Your task to perform on an android device: Search for pizza restaurants on Maps Image 0: 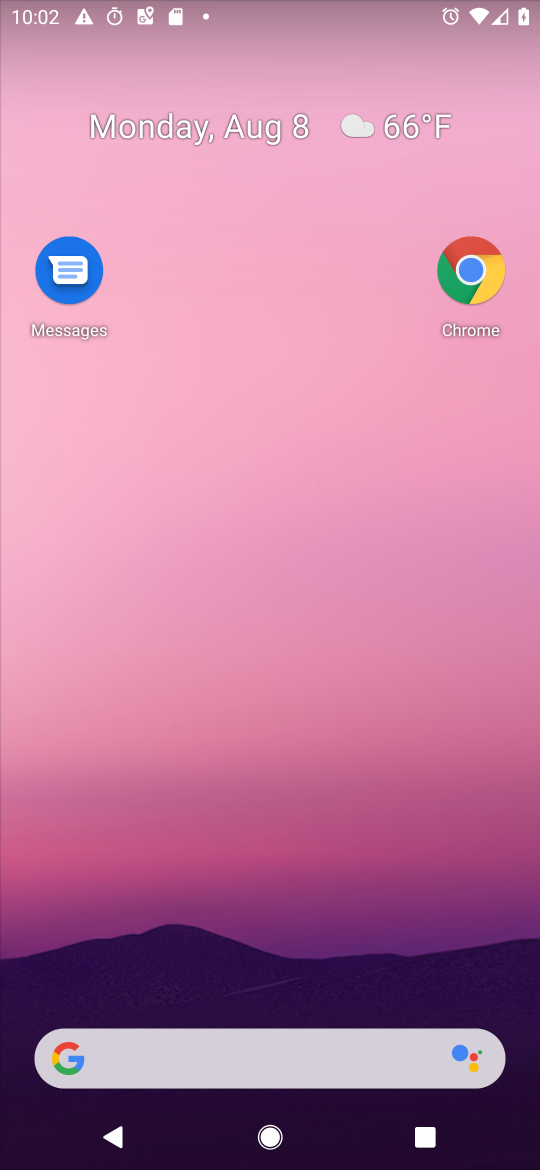
Step 0: press home button
Your task to perform on an android device: Search for pizza restaurants on Maps Image 1: 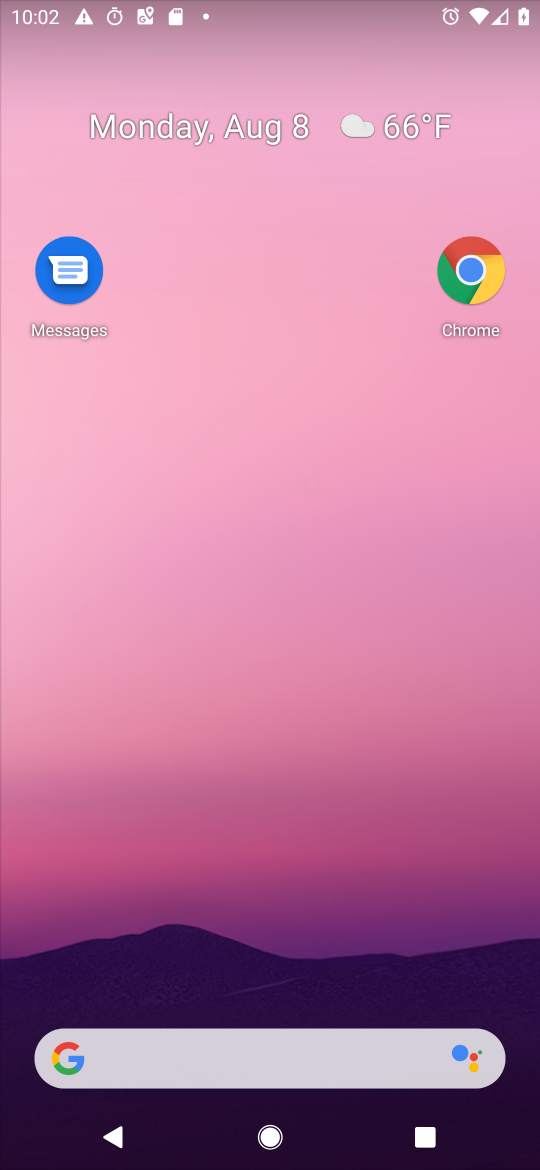
Step 1: drag from (216, 923) to (265, 369)
Your task to perform on an android device: Search for pizza restaurants on Maps Image 2: 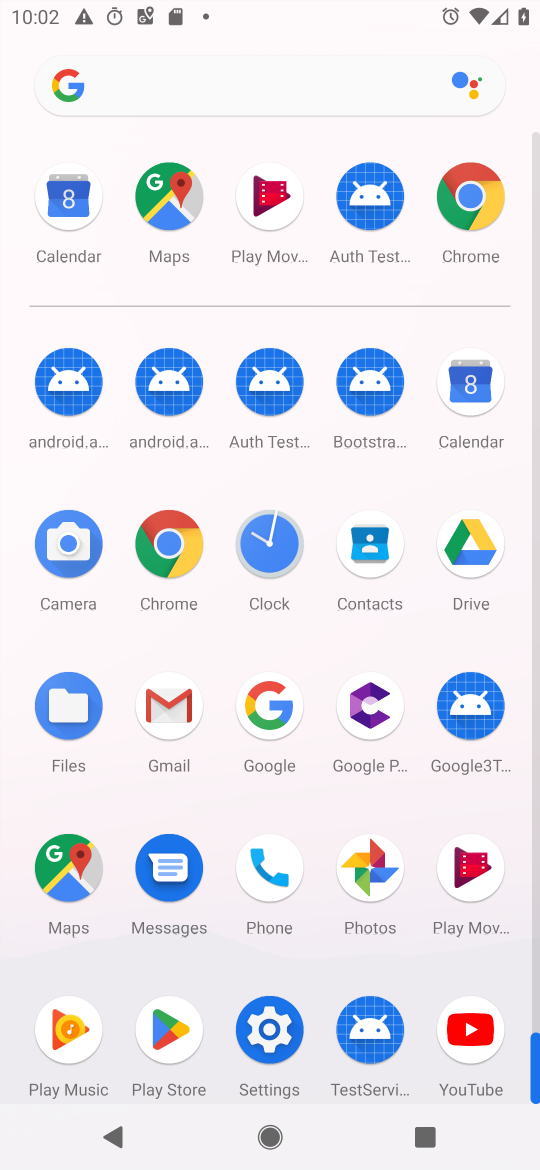
Step 2: click (172, 189)
Your task to perform on an android device: Search for pizza restaurants on Maps Image 3: 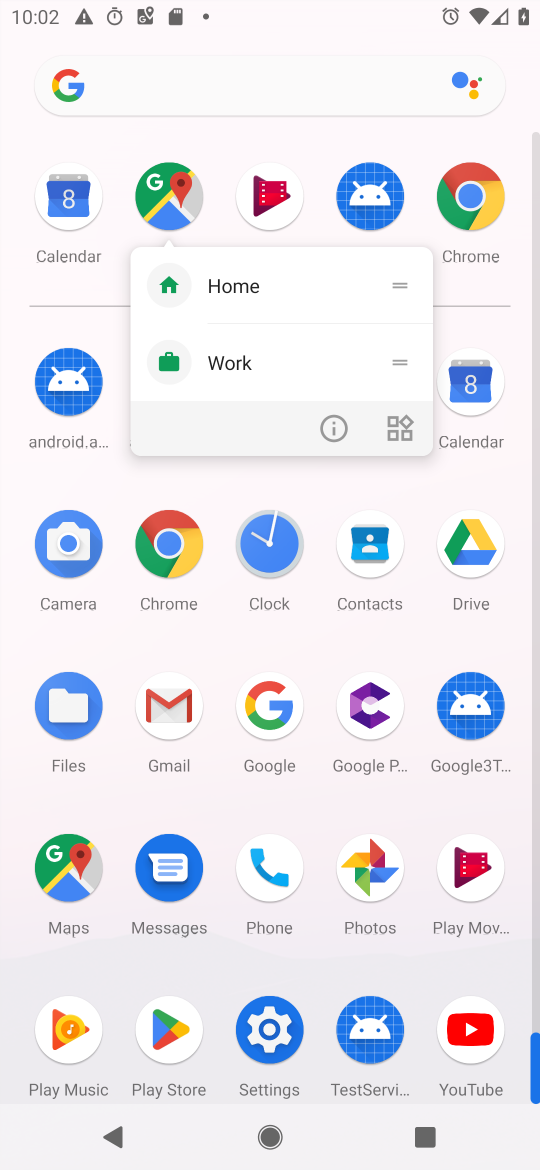
Step 3: click (331, 416)
Your task to perform on an android device: Search for pizza restaurants on Maps Image 4: 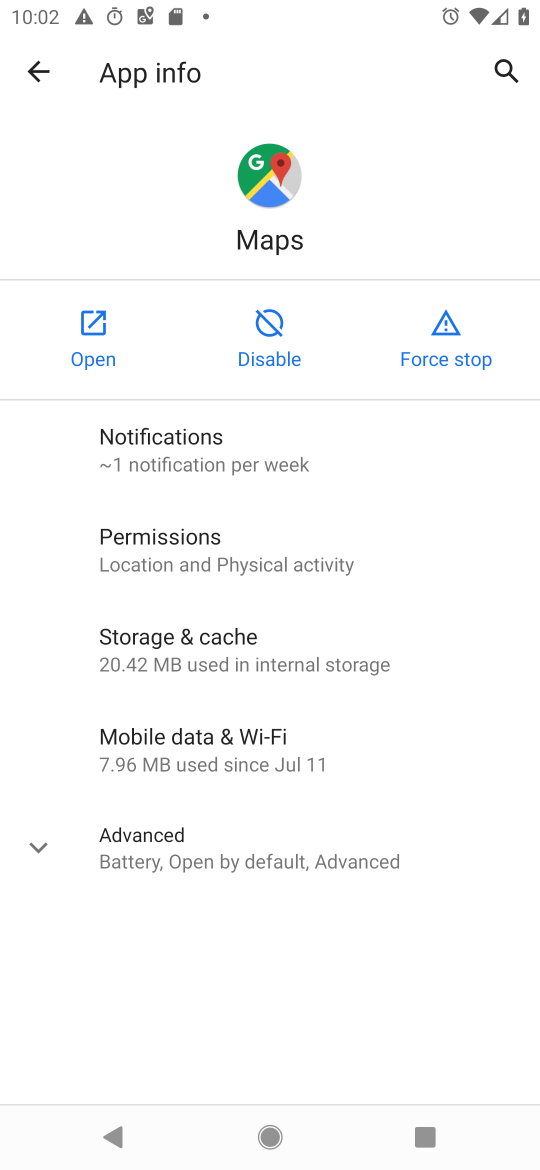
Step 4: click (88, 346)
Your task to perform on an android device: Search for pizza restaurants on Maps Image 5: 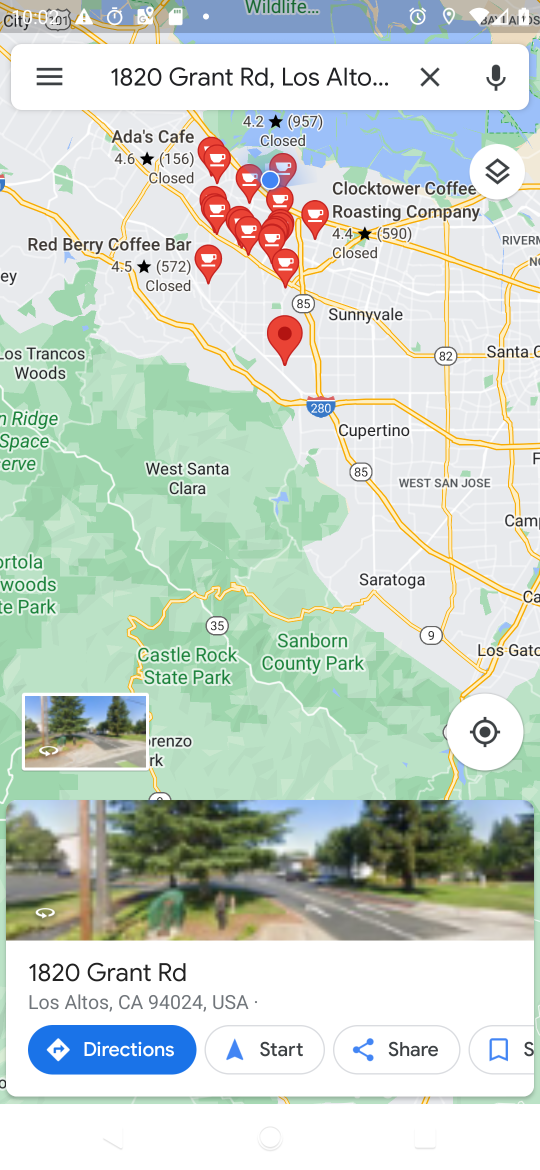
Step 5: drag from (289, 811) to (336, 203)
Your task to perform on an android device: Search for pizza restaurants on Maps Image 6: 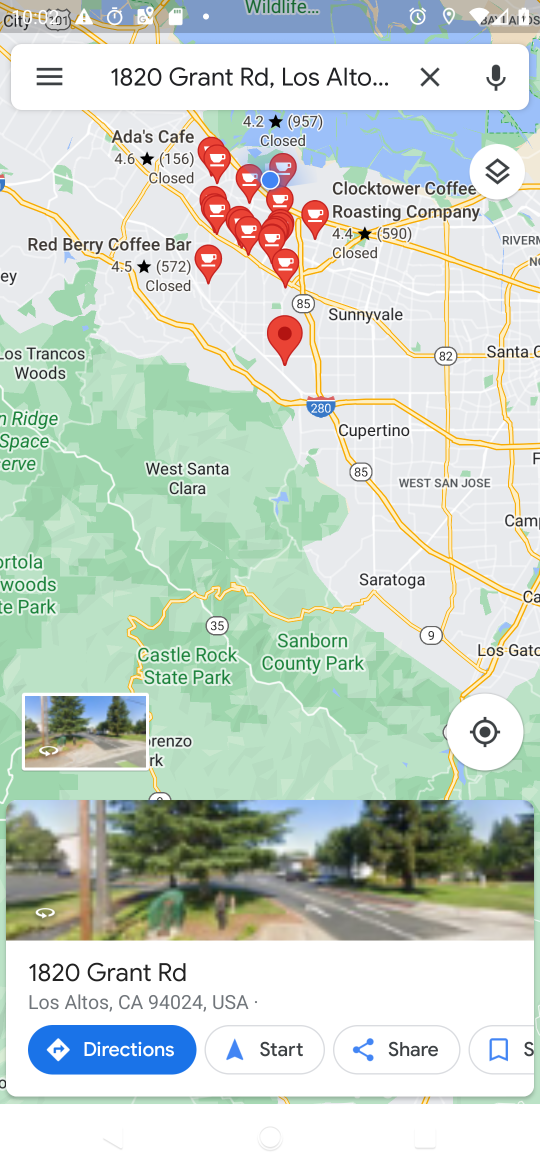
Step 6: click (428, 73)
Your task to perform on an android device: Search for pizza restaurants on Maps Image 7: 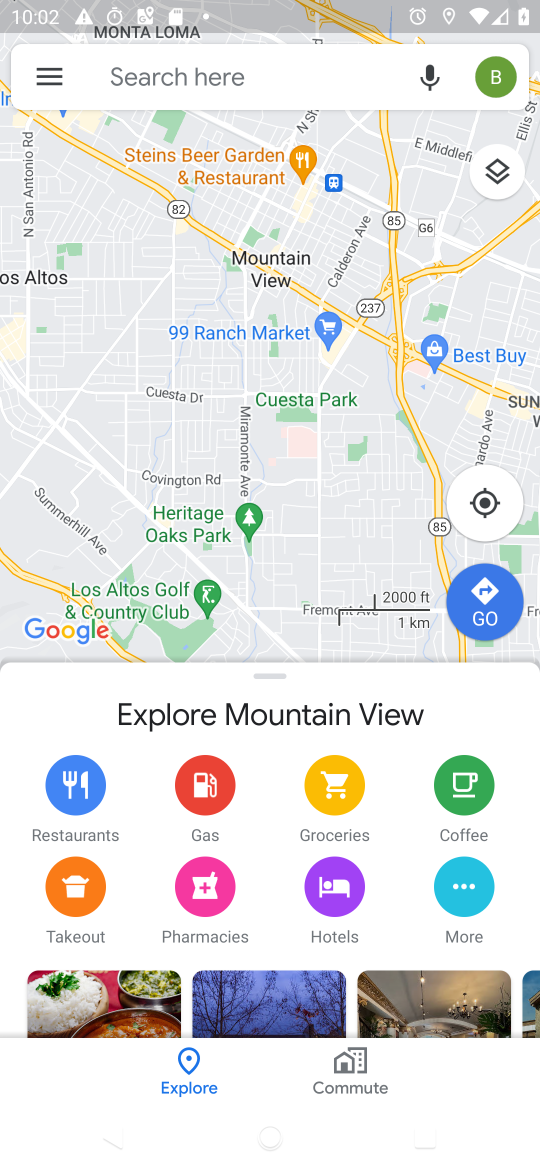
Step 7: click (220, 97)
Your task to perform on an android device: Search for pizza restaurants on Maps Image 8: 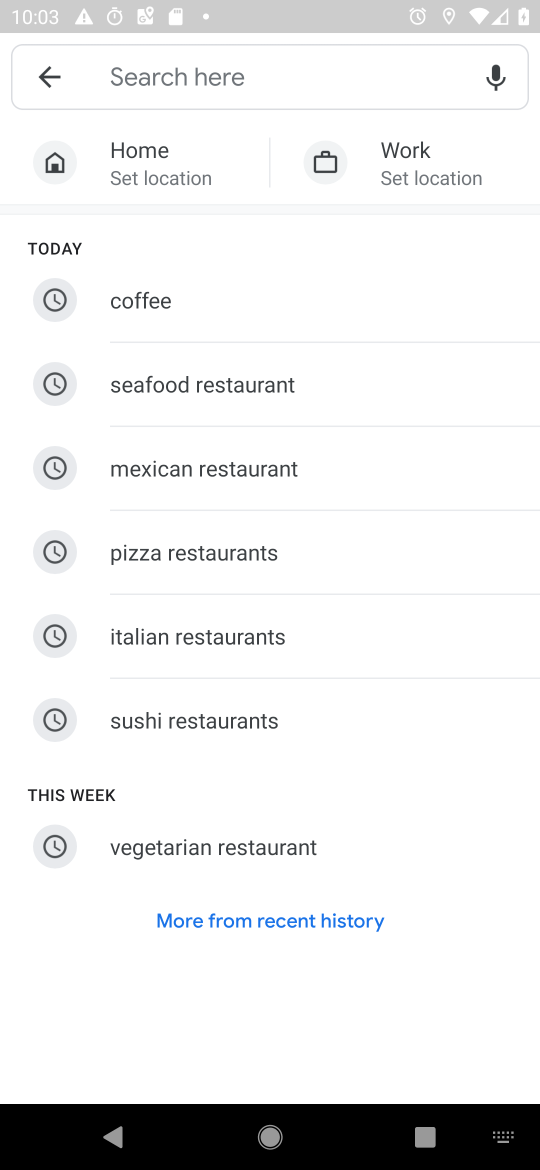
Step 8: click (179, 557)
Your task to perform on an android device: Search for pizza restaurants on Maps Image 9: 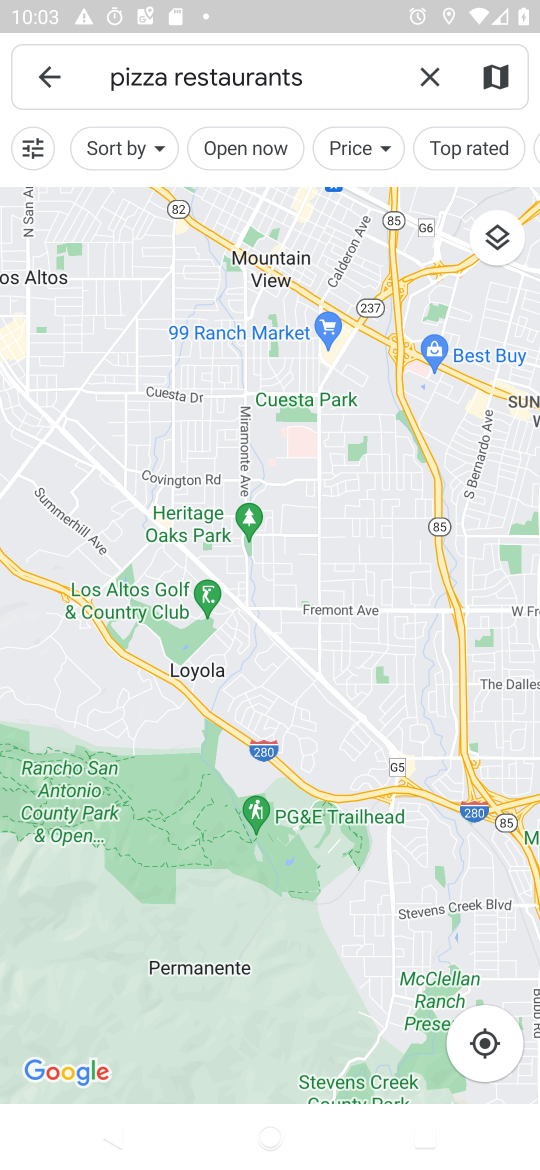
Step 9: task complete